Your task to perform on an android device: Open the calendar app, open the side menu, and click the "Day" option Image 0: 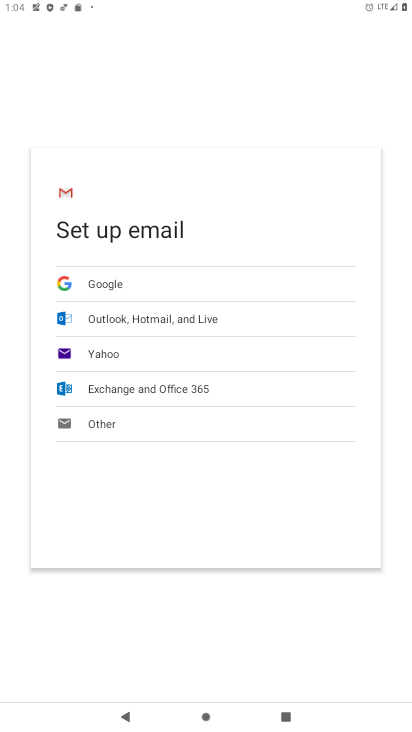
Step 0: press home button
Your task to perform on an android device: Open the calendar app, open the side menu, and click the "Day" option Image 1: 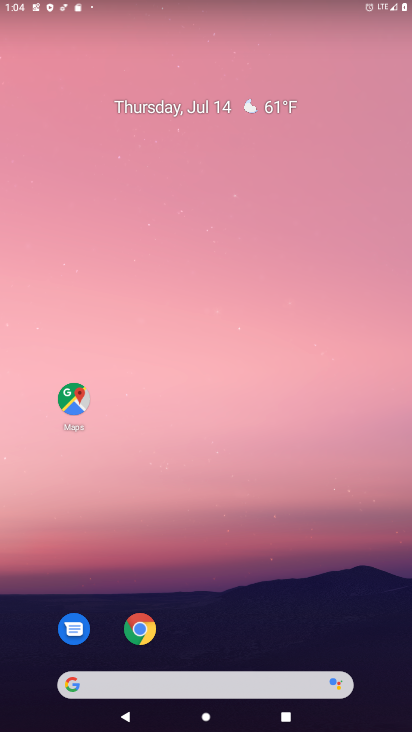
Step 1: drag from (242, 547) to (139, 192)
Your task to perform on an android device: Open the calendar app, open the side menu, and click the "Day" option Image 2: 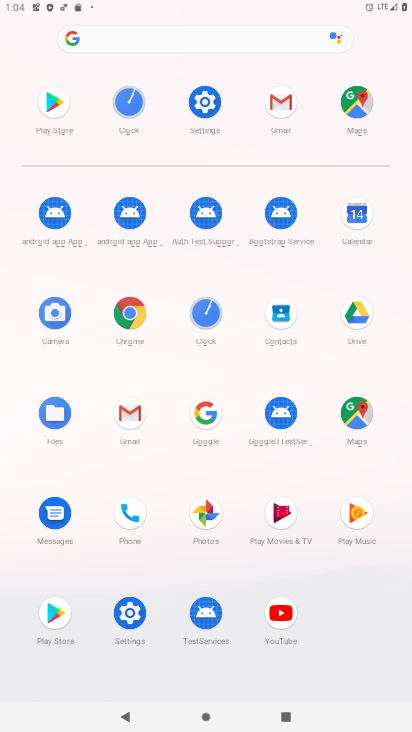
Step 2: click (360, 216)
Your task to perform on an android device: Open the calendar app, open the side menu, and click the "Day" option Image 3: 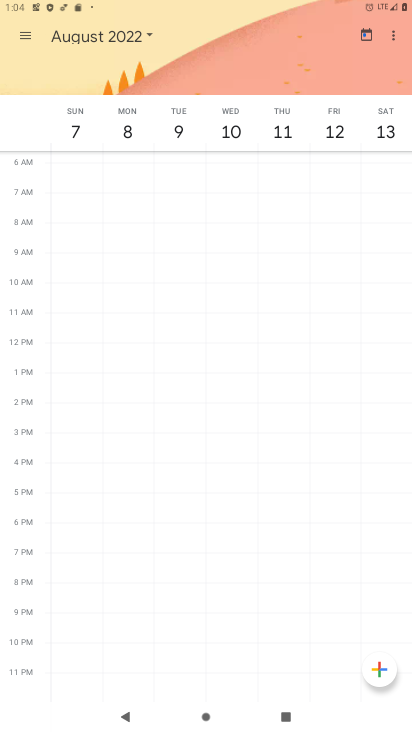
Step 3: click (27, 30)
Your task to perform on an android device: Open the calendar app, open the side menu, and click the "Day" option Image 4: 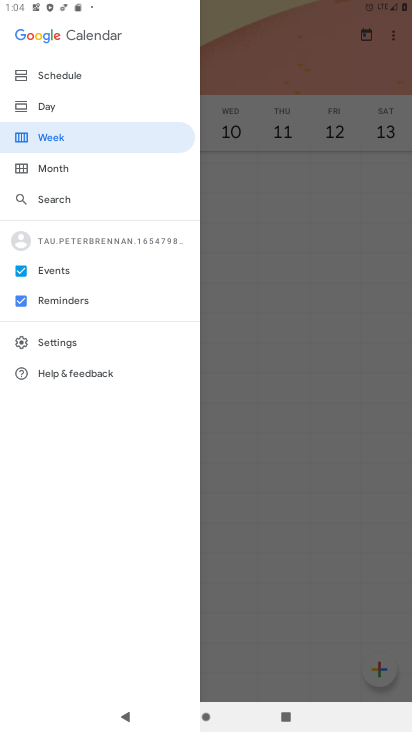
Step 4: click (52, 96)
Your task to perform on an android device: Open the calendar app, open the side menu, and click the "Day" option Image 5: 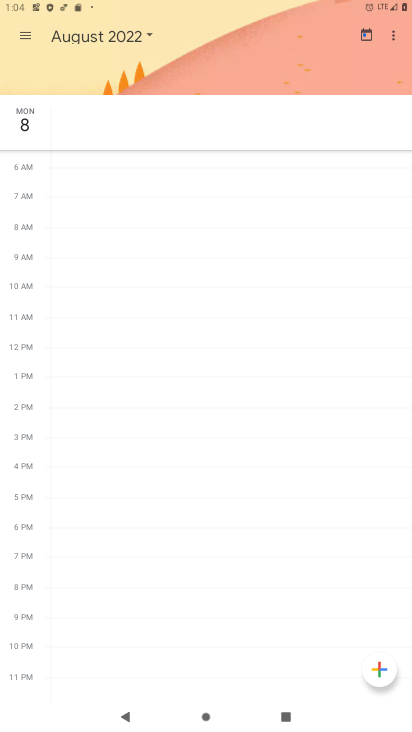
Step 5: task complete